Your task to perform on an android device: Open calendar and show me the first week of next month Image 0: 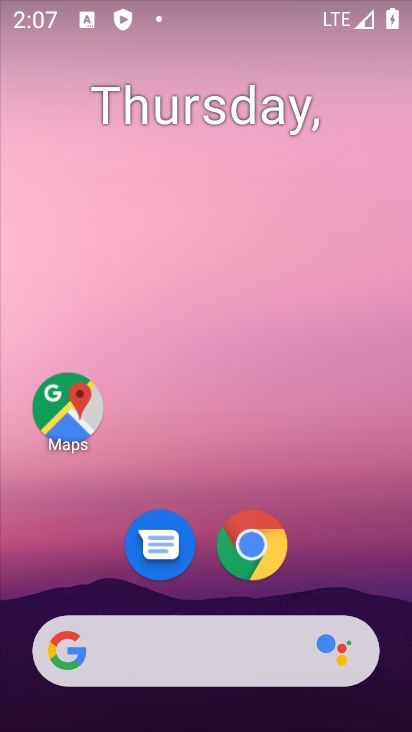
Step 0: drag from (305, 650) to (251, 14)
Your task to perform on an android device: Open calendar and show me the first week of next month Image 1: 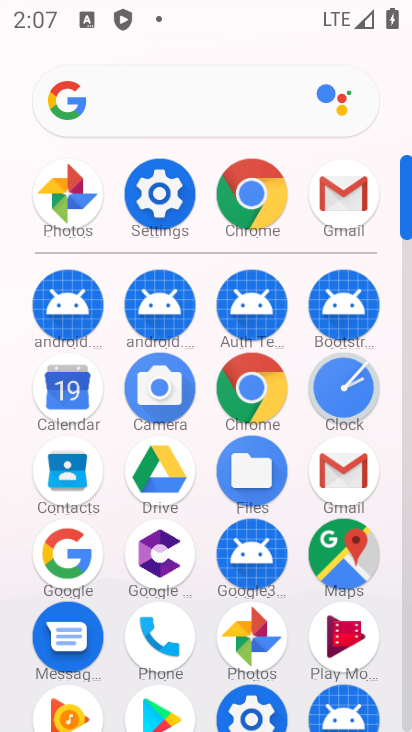
Step 1: click (76, 396)
Your task to perform on an android device: Open calendar and show me the first week of next month Image 2: 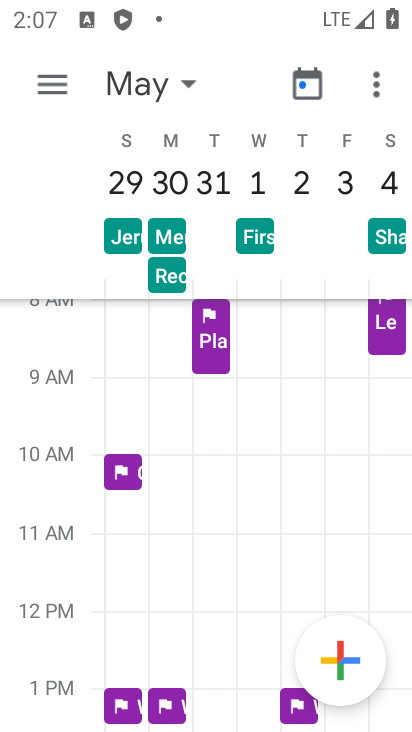
Step 2: click (185, 79)
Your task to perform on an android device: Open calendar and show me the first week of next month Image 3: 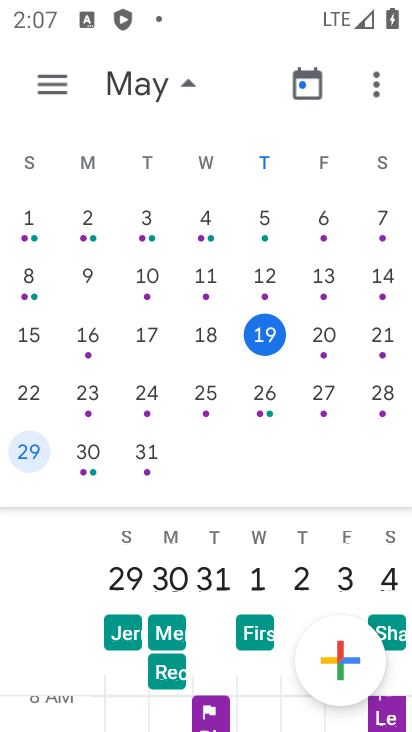
Step 3: drag from (348, 271) to (2, 301)
Your task to perform on an android device: Open calendar and show me the first week of next month Image 4: 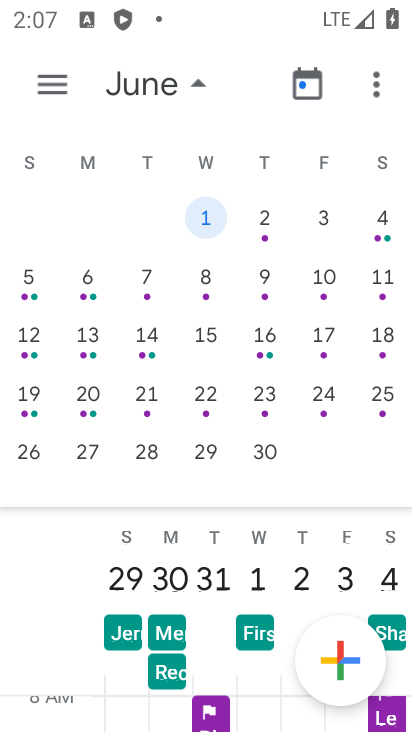
Step 4: click (325, 215)
Your task to perform on an android device: Open calendar and show me the first week of next month Image 5: 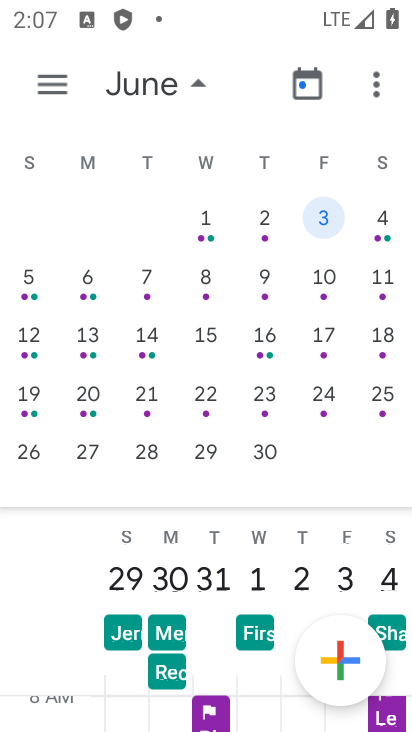
Step 5: task complete